Your task to perform on an android device: check storage Image 0: 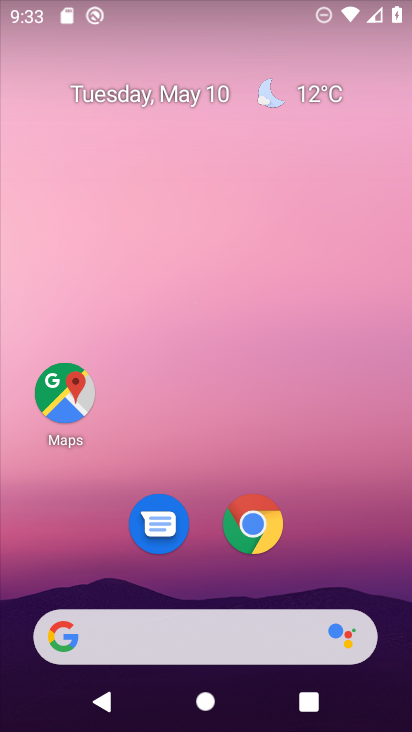
Step 0: drag from (335, 494) to (266, 6)
Your task to perform on an android device: check storage Image 1: 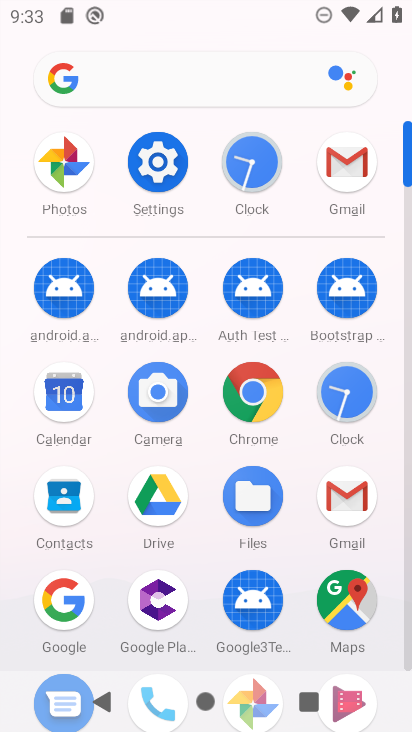
Step 1: click (166, 163)
Your task to perform on an android device: check storage Image 2: 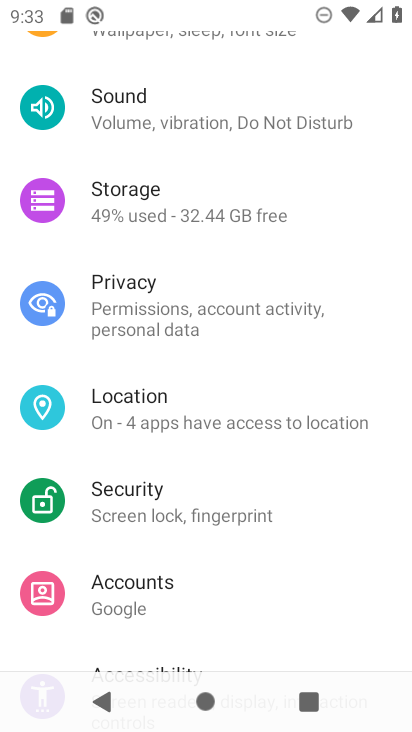
Step 2: click (232, 203)
Your task to perform on an android device: check storage Image 3: 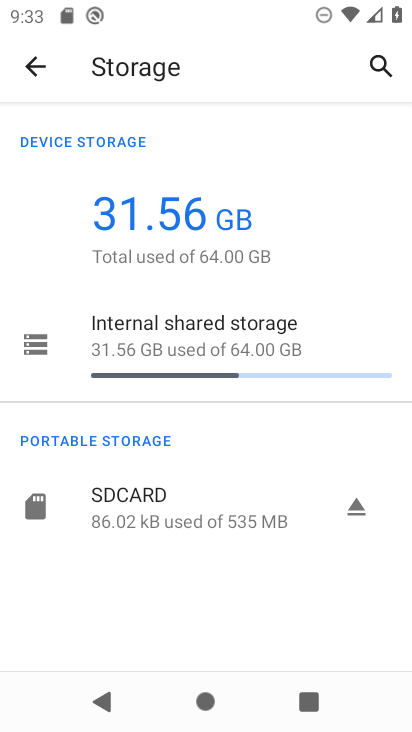
Step 3: task complete